Your task to perform on an android device: Open Youtube and go to the subscriptions tab Image 0: 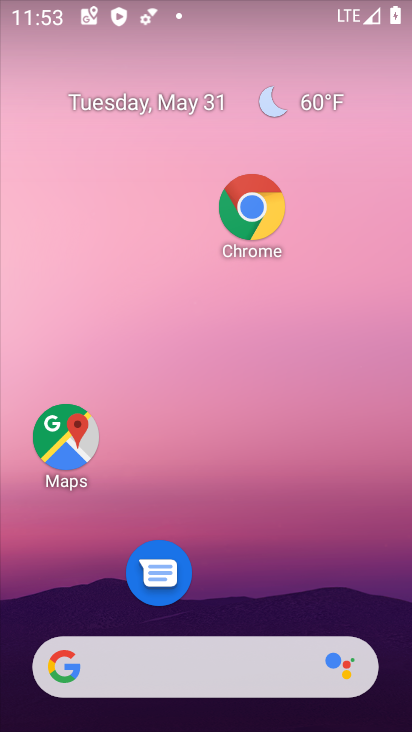
Step 0: drag from (244, 583) to (188, 243)
Your task to perform on an android device: Open Youtube and go to the subscriptions tab Image 1: 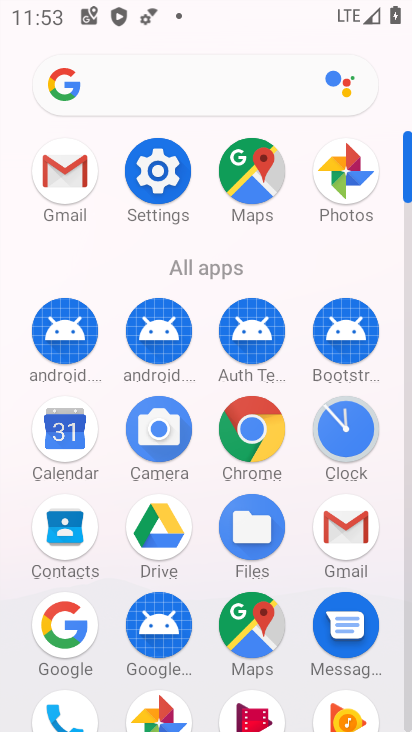
Step 1: drag from (276, 640) to (292, 241)
Your task to perform on an android device: Open Youtube and go to the subscriptions tab Image 2: 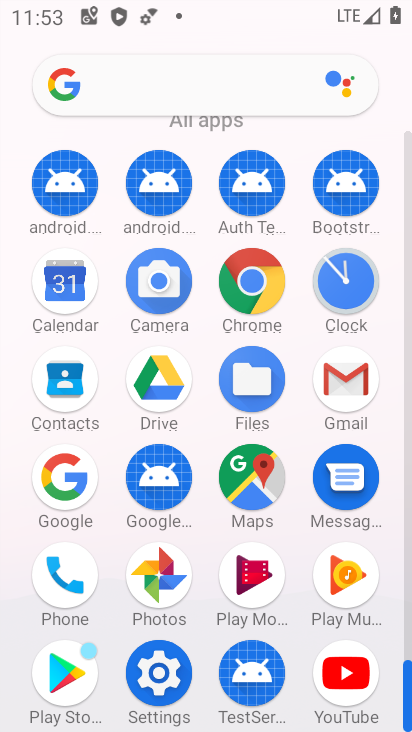
Step 2: click (358, 660)
Your task to perform on an android device: Open Youtube and go to the subscriptions tab Image 3: 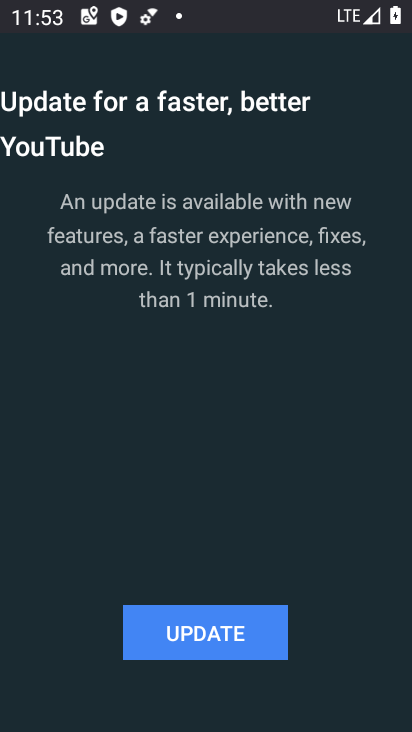
Step 3: click (232, 616)
Your task to perform on an android device: Open Youtube and go to the subscriptions tab Image 4: 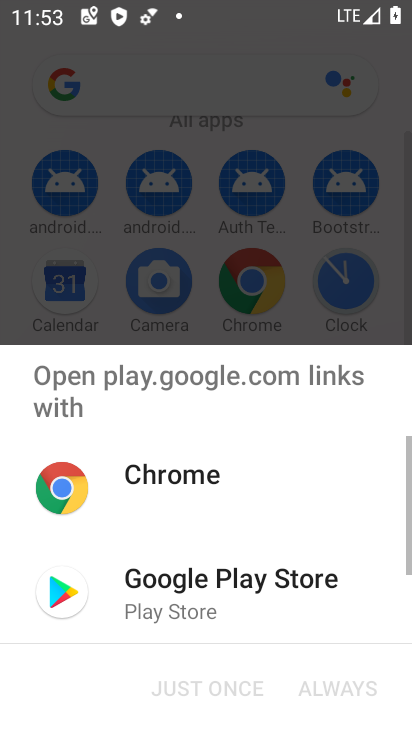
Step 4: click (178, 569)
Your task to perform on an android device: Open Youtube and go to the subscriptions tab Image 5: 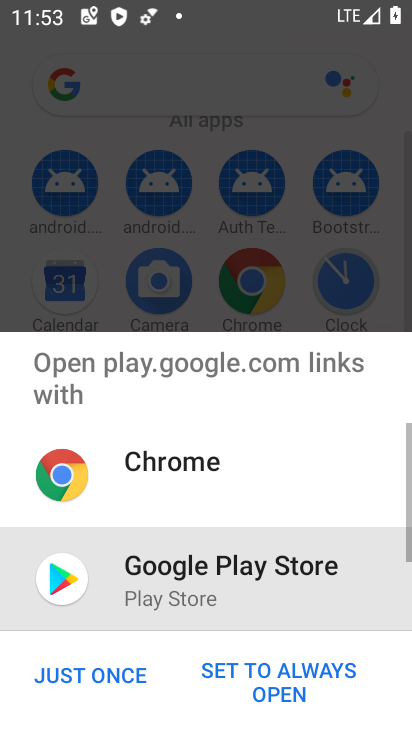
Step 5: click (132, 674)
Your task to perform on an android device: Open Youtube and go to the subscriptions tab Image 6: 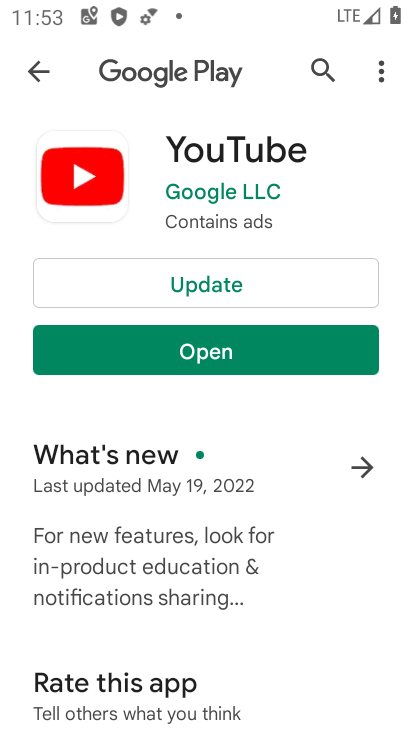
Step 6: click (194, 293)
Your task to perform on an android device: Open Youtube and go to the subscriptions tab Image 7: 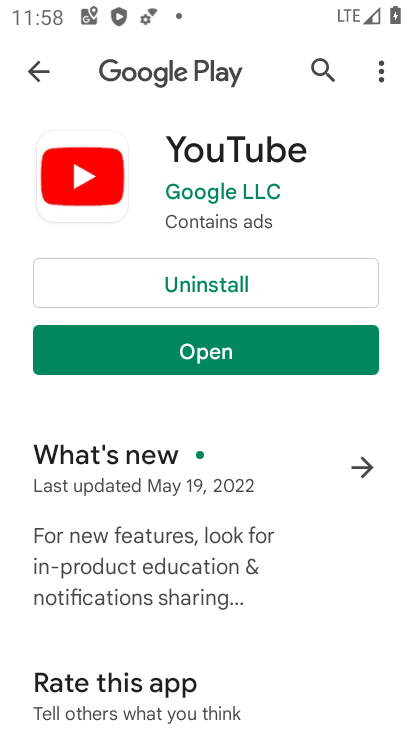
Step 7: click (168, 340)
Your task to perform on an android device: Open Youtube and go to the subscriptions tab Image 8: 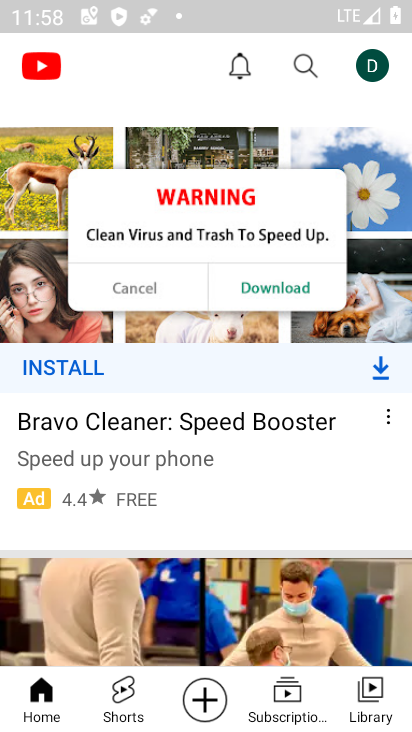
Step 8: click (268, 694)
Your task to perform on an android device: Open Youtube and go to the subscriptions tab Image 9: 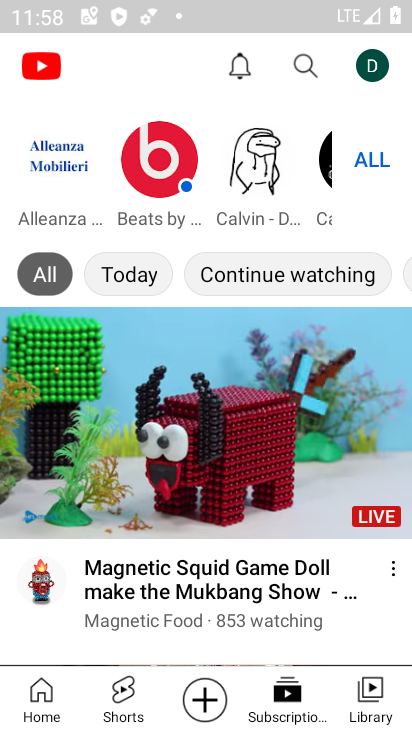
Step 9: task complete